Your task to perform on an android device: Open location settings Image 0: 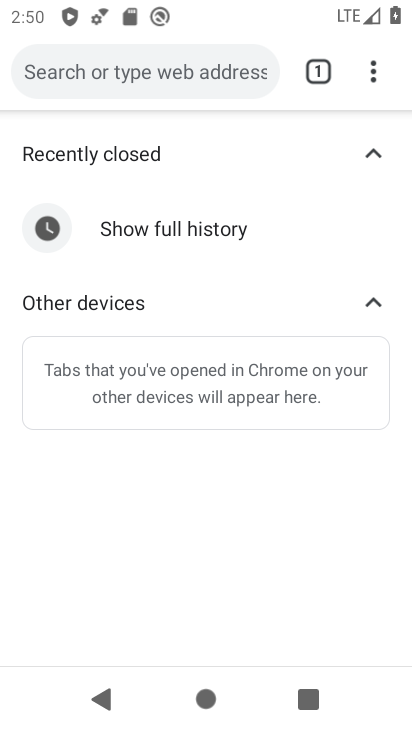
Step 0: press back button
Your task to perform on an android device: Open location settings Image 1: 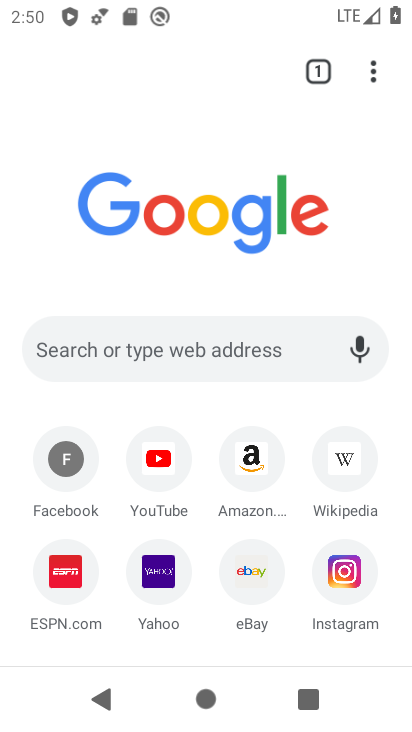
Step 1: press back button
Your task to perform on an android device: Open location settings Image 2: 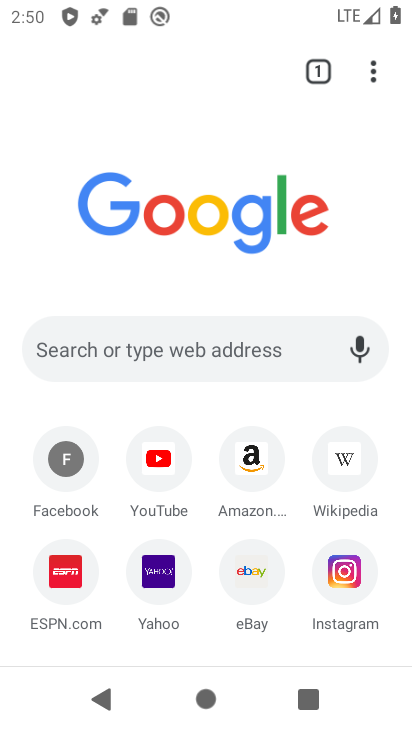
Step 2: press home button
Your task to perform on an android device: Open location settings Image 3: 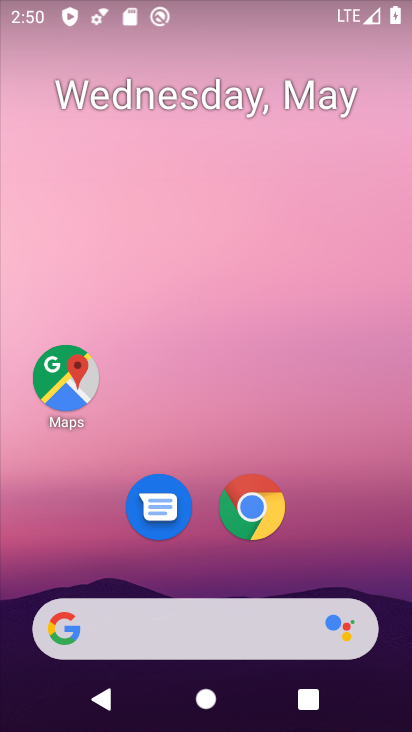
Step 3: drag from (300, 558) to (286, 47)
Your task to perform on an android device: Open location settings Image 4: 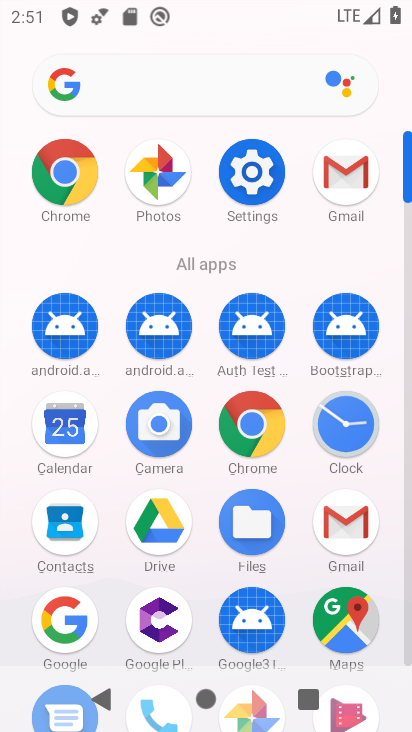
Step 4: drag from (10, 573) to (37, 257)
Your task to perform on an android device: Open location settings Image 5: 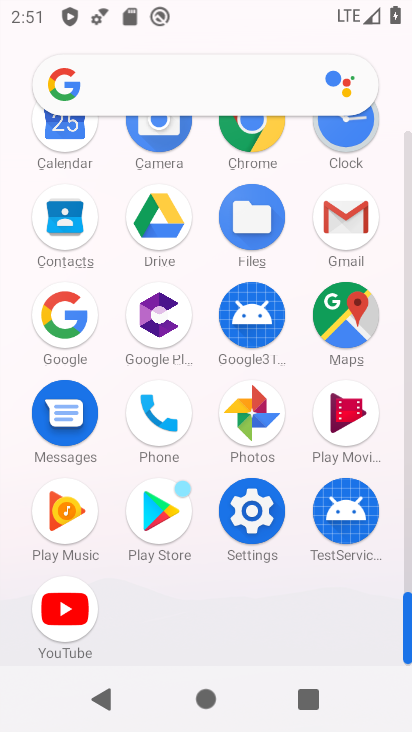
Step 5: click (251, 512)
Your task to perform on an android device: Open location settings Image 6: 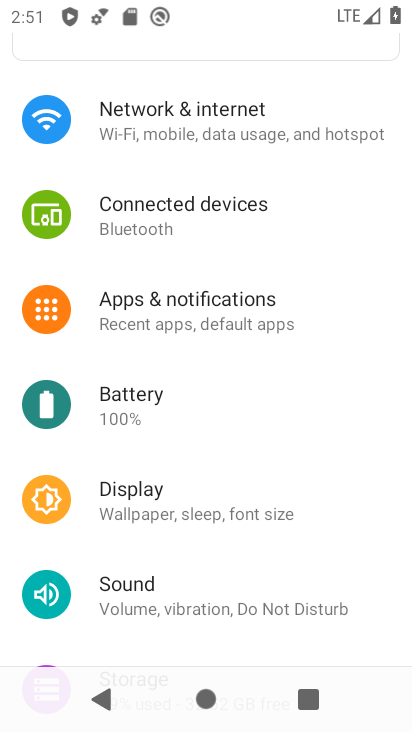
Step 6: drag from (249, 516) to (295, 157)
Your task to perform on an android device: Open location settings Image 7: 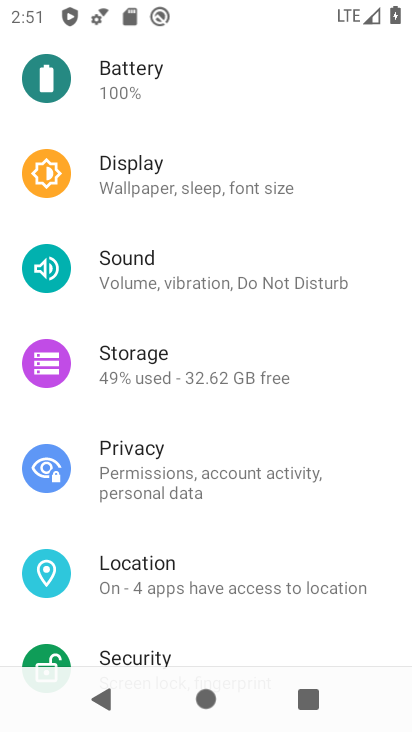
Step 7: click (187, 569)
Your task to perform on an android device: Open location settings Image 8: 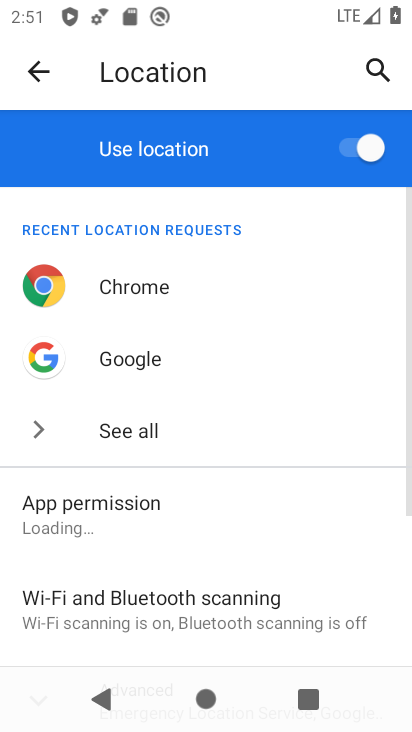
Step 8: drag from (193, 521) to (213, 155)
Your task to perform on an android device: Open location settings Image 9: 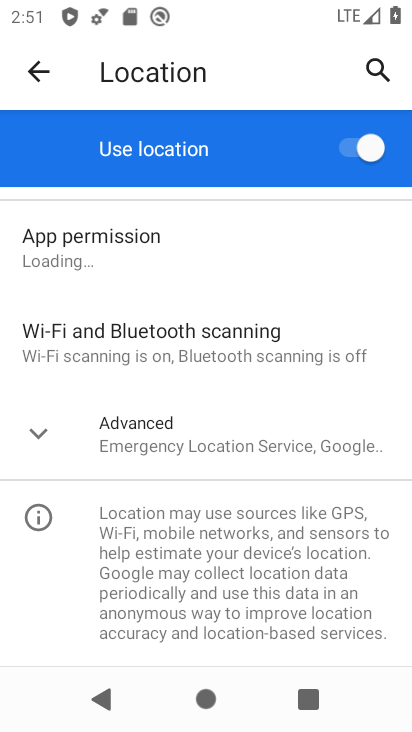
Step 9: drag from (277, 528) to (275, 241)
Your task to perform on an android device: Open location settings Image 10: 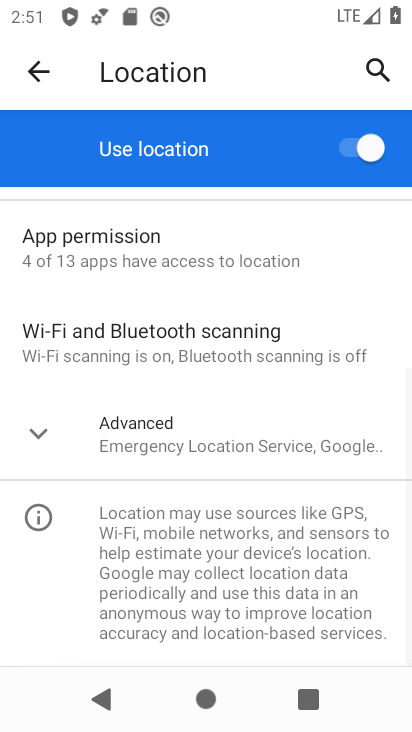
Step 10: click (57, 429)
Your task to perform on an android device: Open location settings Image 11: 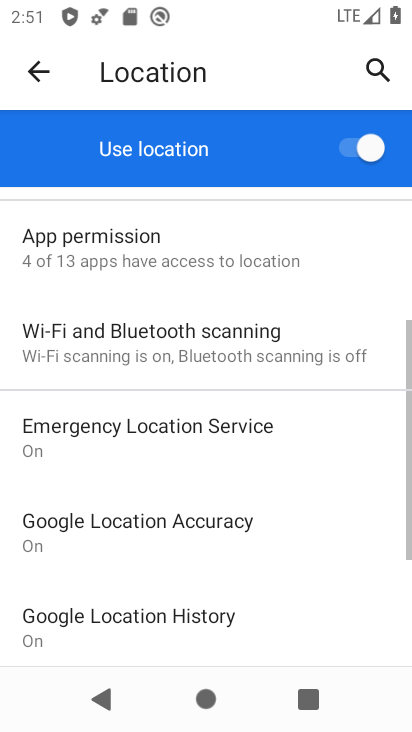
Step 11: task complete